Your task to perform on an android device: Open CNN.com Image 0: 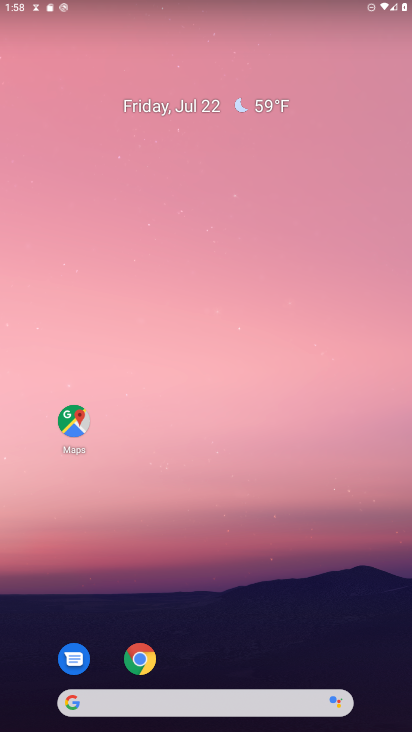
Step 0: drag from (231, 603) to (262, 16)
Your task to perform on an android device: Open CNN.com Image 1: 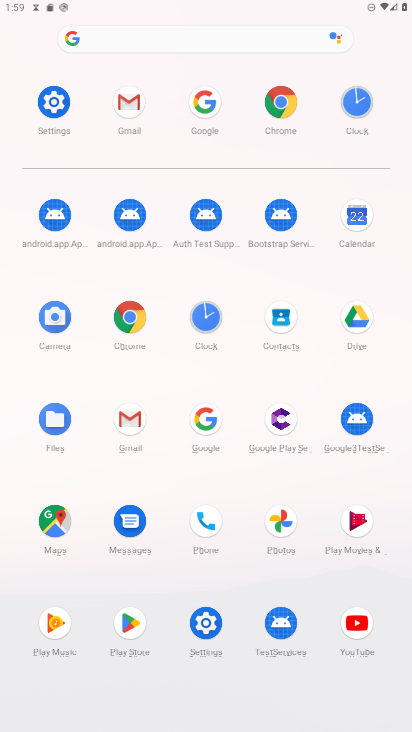
Step 1: click (275, 123)
Your task to perform on an android device: Open CNN.com Image 2: 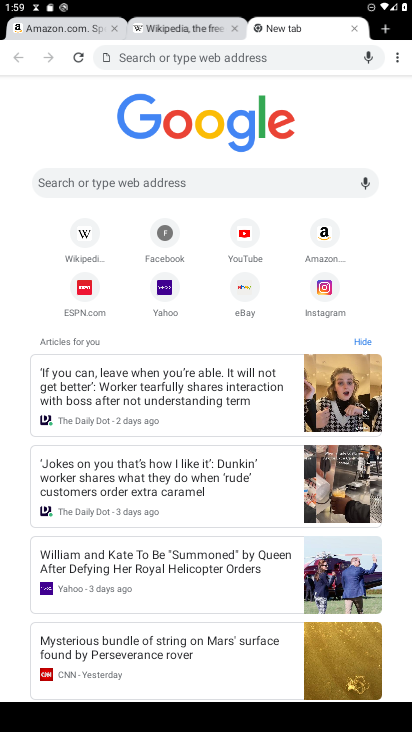
Step 2: click (194, 181)
Your task to perform on an android device: Open CNN.com Image 3: 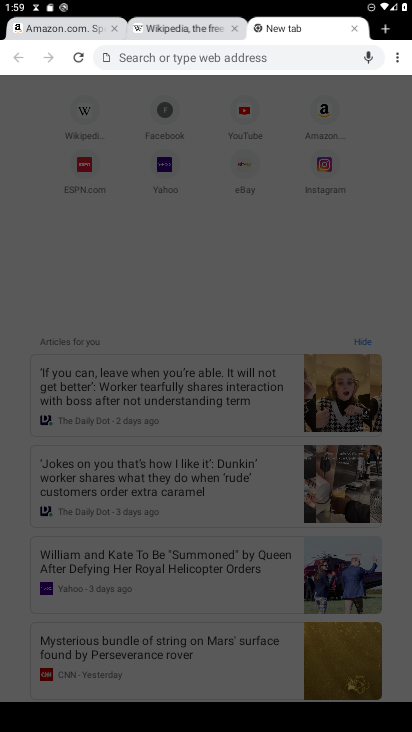
Step 3: type "CNN.com"
Your task to perform on an android device: Open CNN.com Image 4: 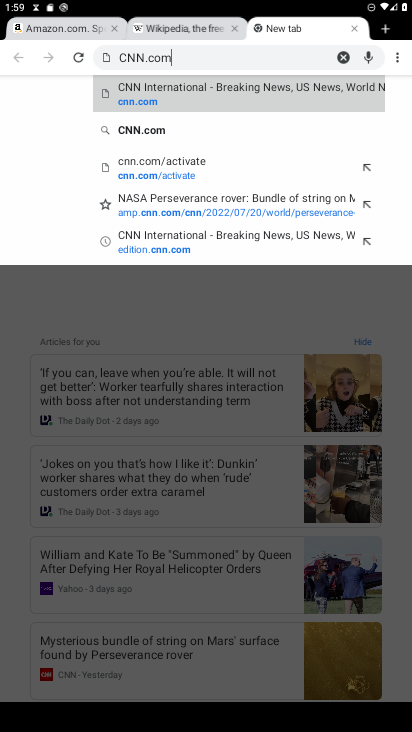
Step 4: click (155, 124)
Your task to perform on an android device: Open CNN.com Image 5: 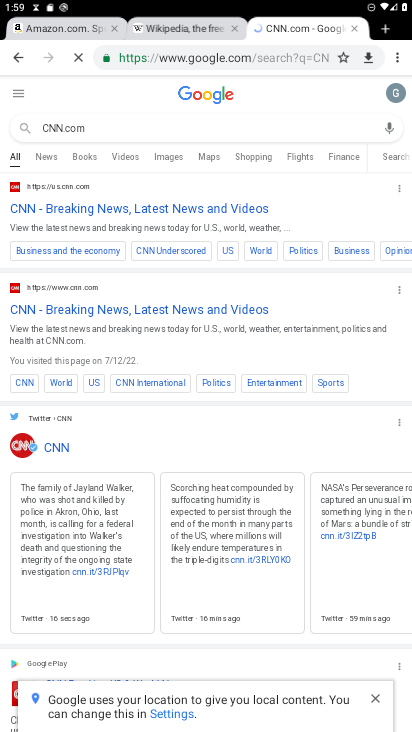
Step 5: click (47, 213)
Your task to perform on an android device: Open CNN.com Image 6: 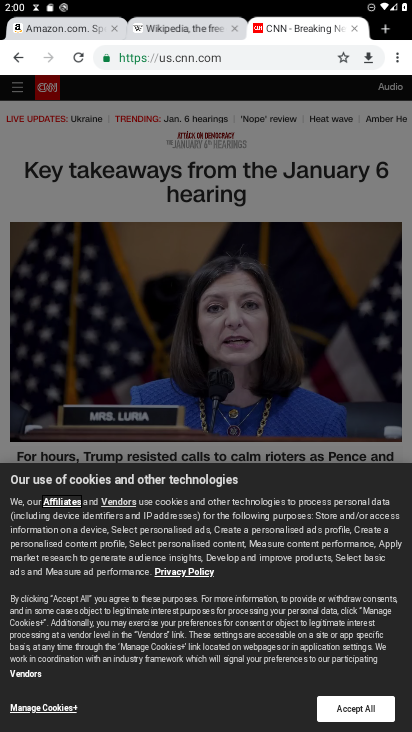
Step 6: task complete